Your task to perform on an android device: Open Google Chrome and click the shortcut for Amazon.com Image 0: 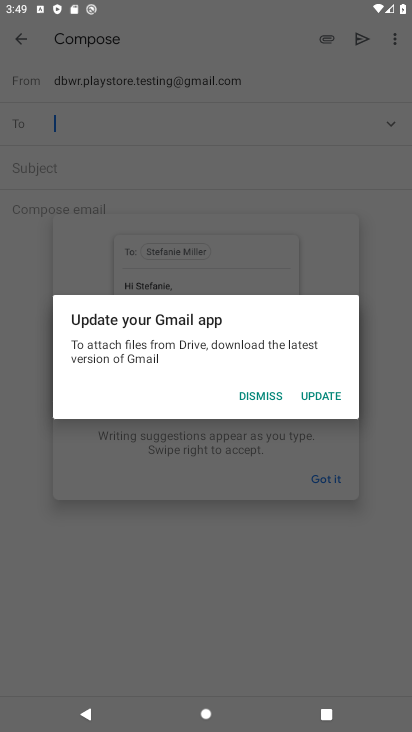
Step 0: press home button
Your task to perform on an android device: Open Google Chrome and click the shortcut for Amazon.com Image 1: 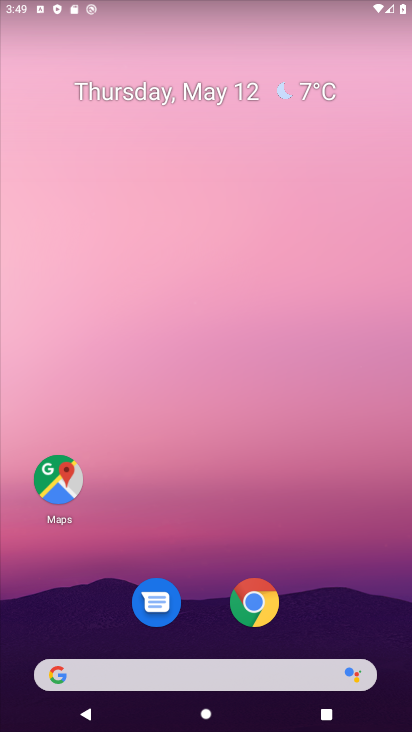
Step 1: click (272, 598)
Your task to perform on an android device: Open Google Chrome and click the shortcut for Amazon.com Image 2: 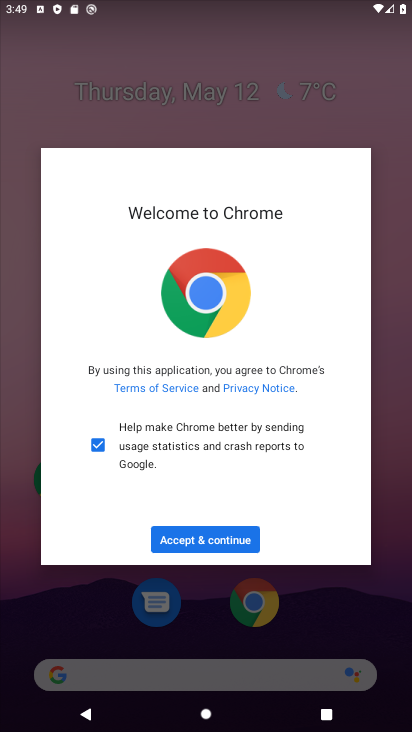
Step 2: click (245, 539)
Your task to perform on an android device: Open Google Chrome and click the shortcut for Amazon.com Image 3: 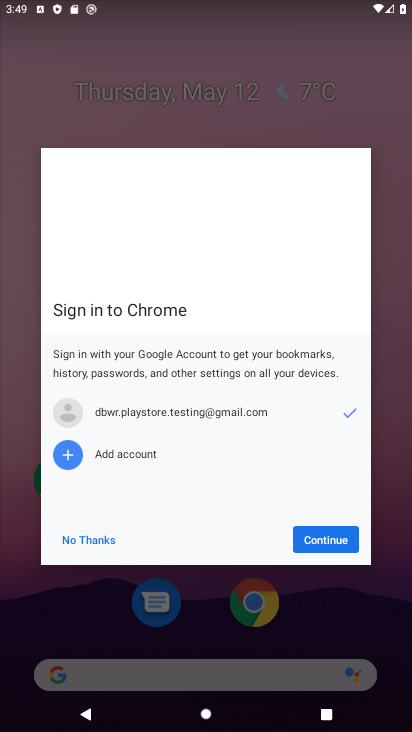
Step 3: click (311, 537)
Your task to perform on an android device: Open Google Chrome and click the shortcut for Amazon.com Image 4: 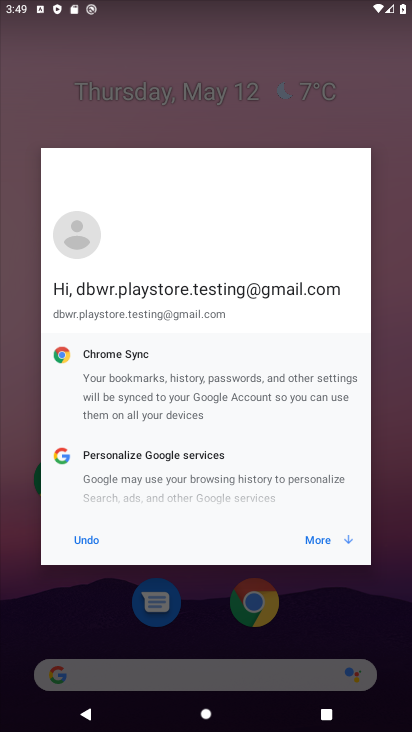
Step 4: click (311, 537)
Your task to perform on an android device: Open Google Chrome and click the shortcut for Amazon.com Image 5: 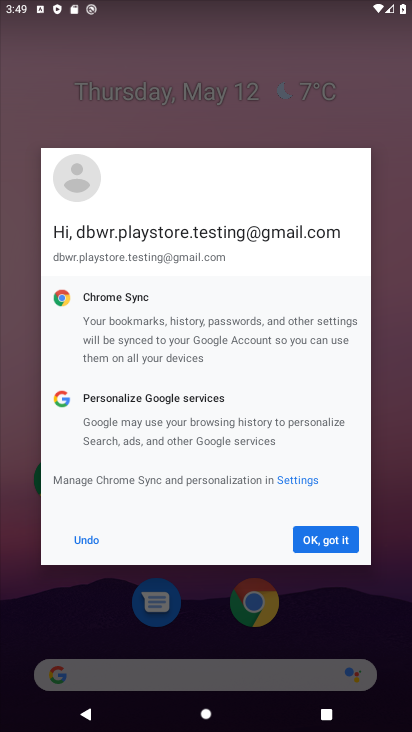
Step 5: click (311, 537)
Your task to perform on an android device: Open Google Chrome and click the shortcut for Amazon.com Image 6: 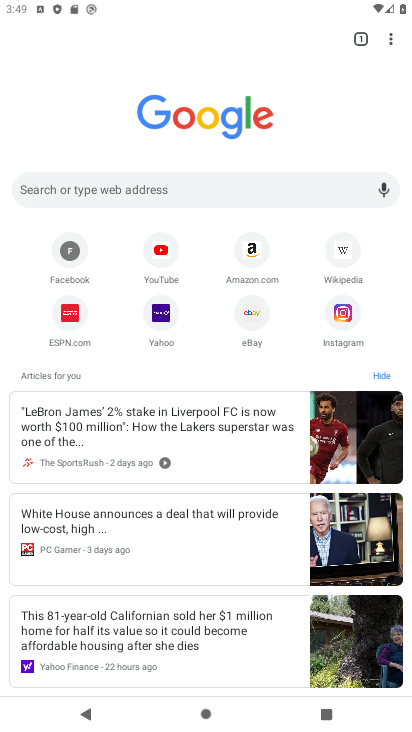
Step 6: click (249, 245)
Your task to perform on an android device: Open Google Chrome and click the shortcut for Amazon.com Image 7: 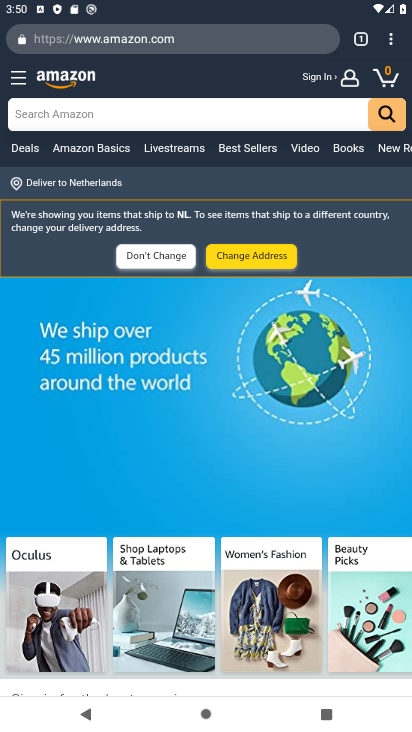
Step 7: task complete